Your task to perform on an android device: change the clock display to digital Image 0: 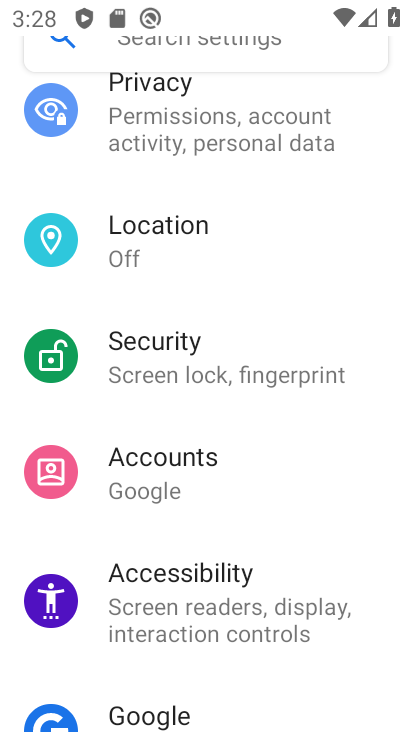
Step 0: drag from (296, 612) to (230, 386)
Your task to perform on an android device: change the clock display to digital Image 1: 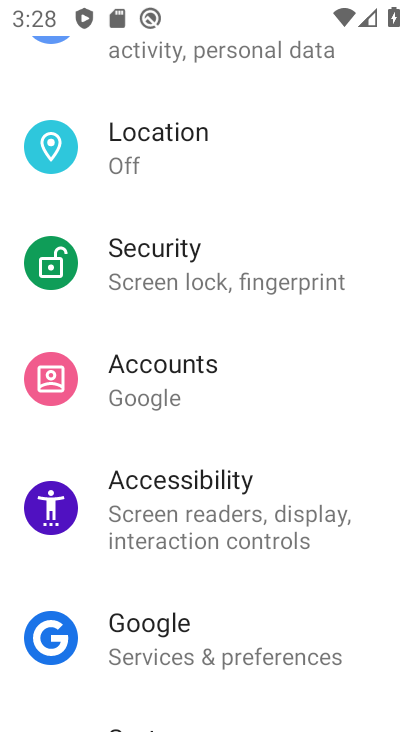
Step 1: drag from (228, 427) to (135, 128)
Your task to perform on an android device: change the clock display to digital Image 2: 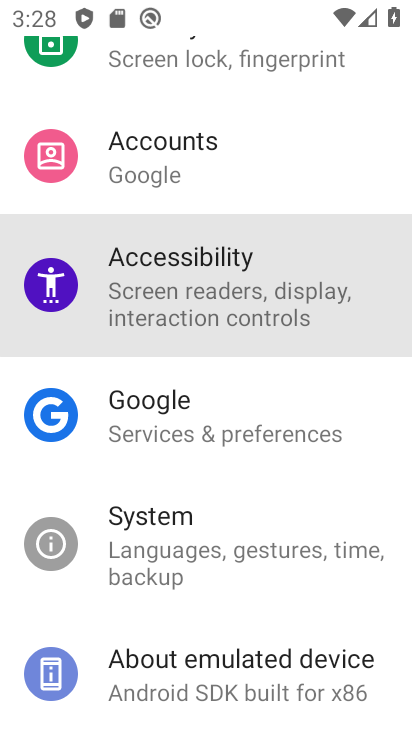
Step 2: drag from (202, 443) to (203, 180)
Your task to perform on an android device: change the clock display to digital Image 3: 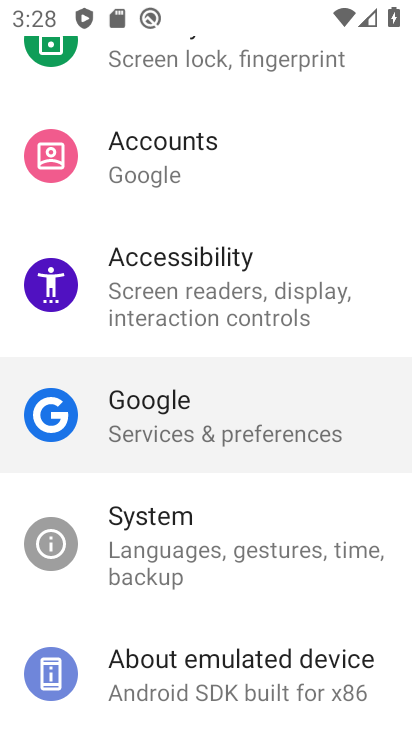
Step 3: drag from (235, 524) to (176, 160)
Your task to perform on an android device: change the clock display to digital Image 4: 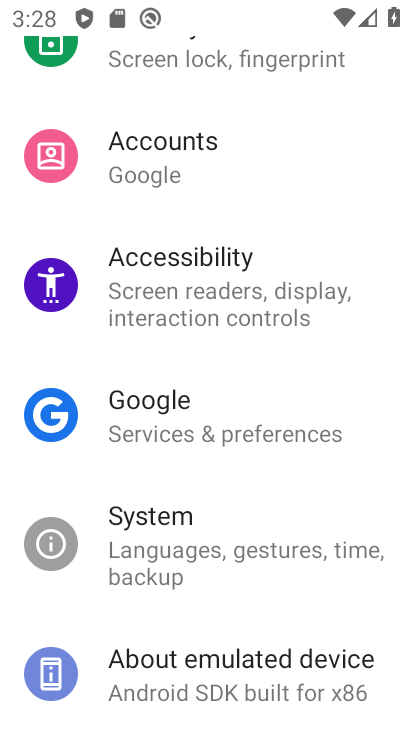
Step 4: drag from (136, 254) to (163, 508)
Your task to perform on an android device: change the clock display to digital Image 5: 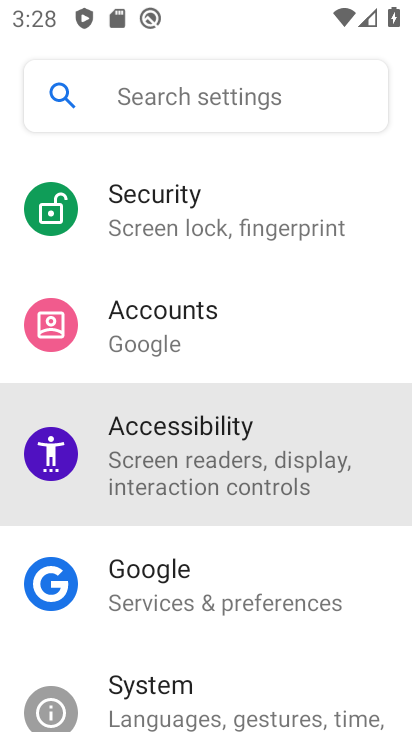
Step 5: drag from (125, 289) to (153, 454)
Your task to perform on an android device: change the clock display to digital Image 6: 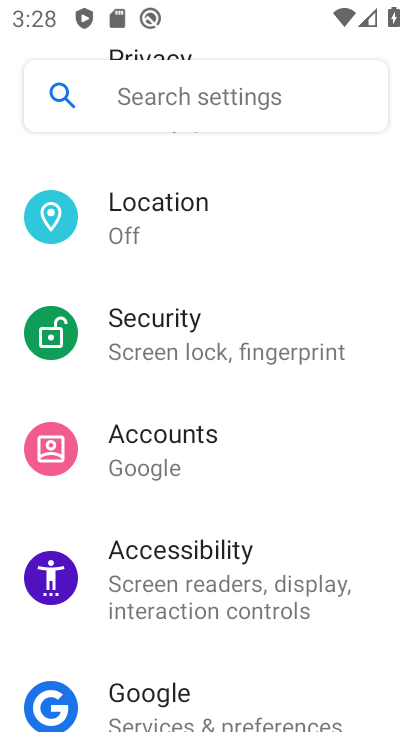
Step 6: drag from (158, 332) to (263, 553)
Your task to perform on an android device: change the clock display to digital Image 7: 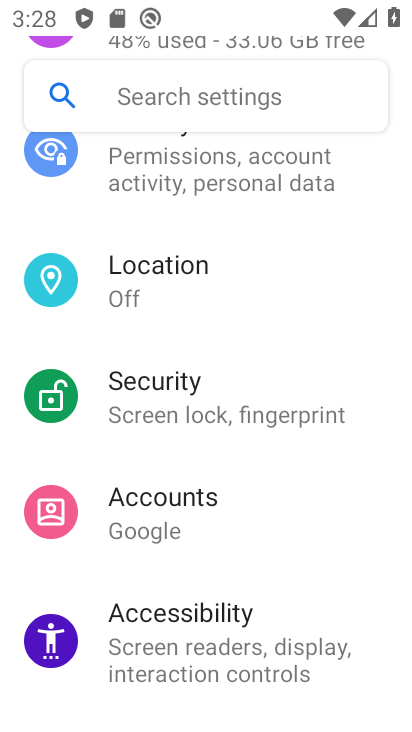
Step 7: drag from (198, 332) to (222, 536)
Your task to perform on an android device: change the clock display to digital Image 8: 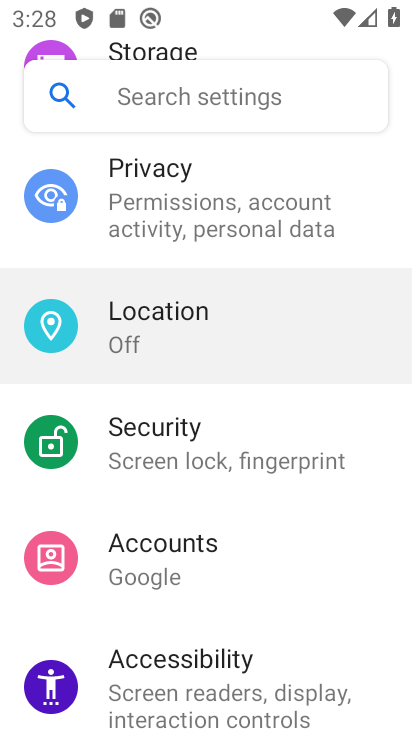
Step 8: drag from (165, 329) to (206, 542)
Your task to perform on an android device: change the clock display to digital Image 9: 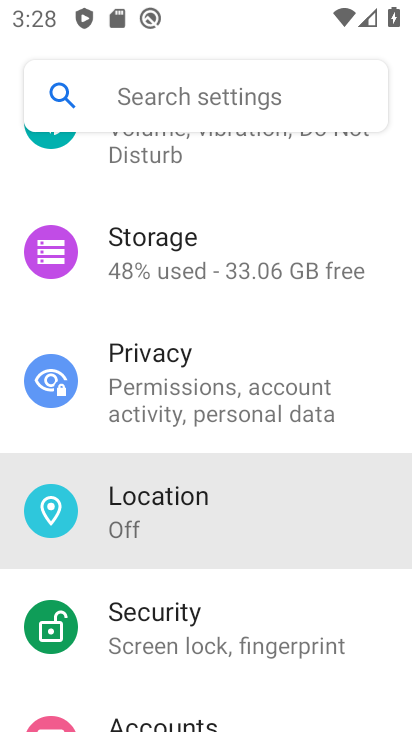
Step 9: drag from (186, 260) to (183, 462)
Your task to perform on an android device: change the clock display to digital Image 10: 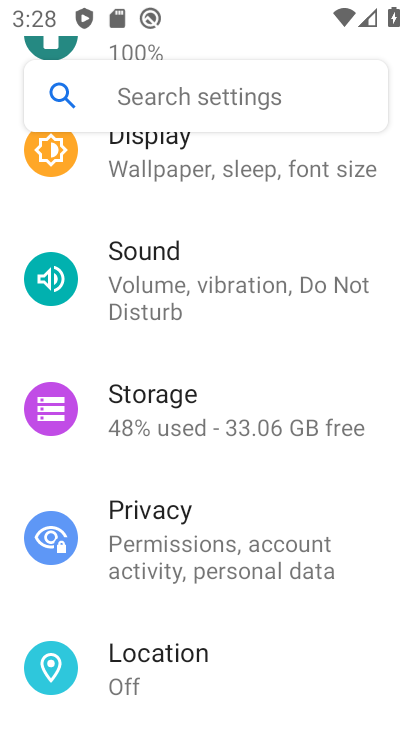
Step 10: drag from (160, 253) to (161, 498)
Your task to perform on an android device: change the clock display to digital Image 11: 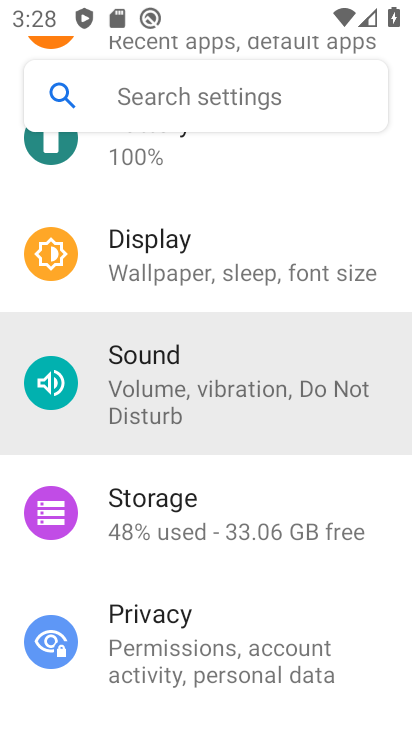
Step 11: drag from (81, 206) to (139, 439)
Your task to perform on an android device: change the clock display to digital Image 12: 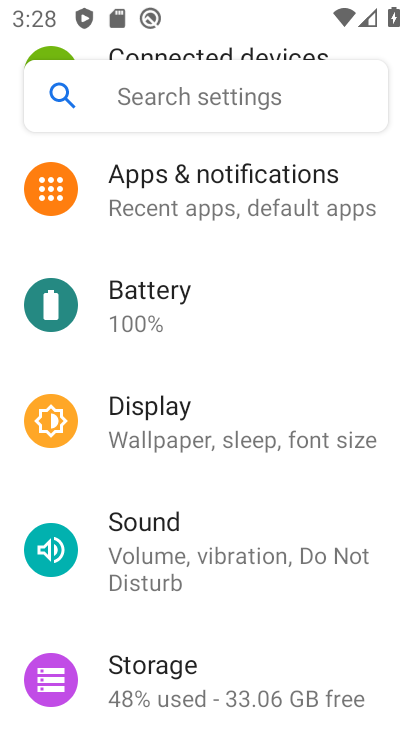
Step 12: drag from (161, 326) to (194, 564)
Your task to perform on an android device: change the clock display to digital Image 13: 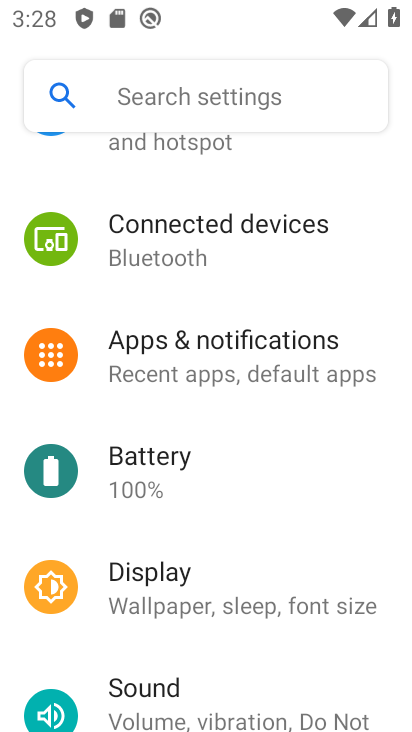
Step 13: drag from (201, 199) to (201, 512)
Your task to perform on an android device: change the clock display to digital Image 14: 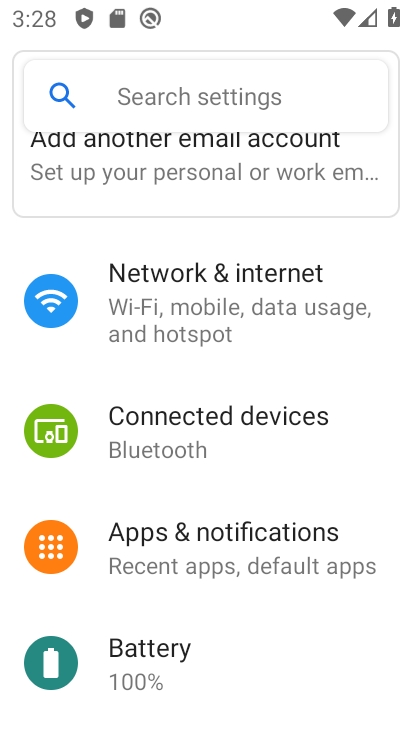
Step 14: drag from (187, 208) to (243, 549)
Your task to perform on an android device: change the clock display to digital Image 15: 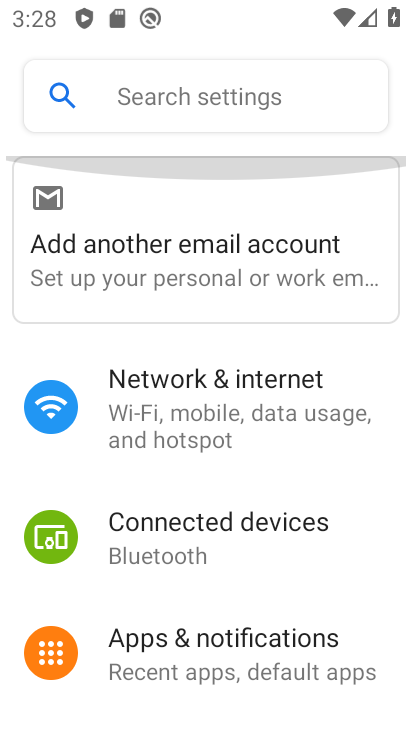
Step 15: drag from (151, 281) to (186, 694)
Your task to perform on an android device: change the clock display to digital Image 16: 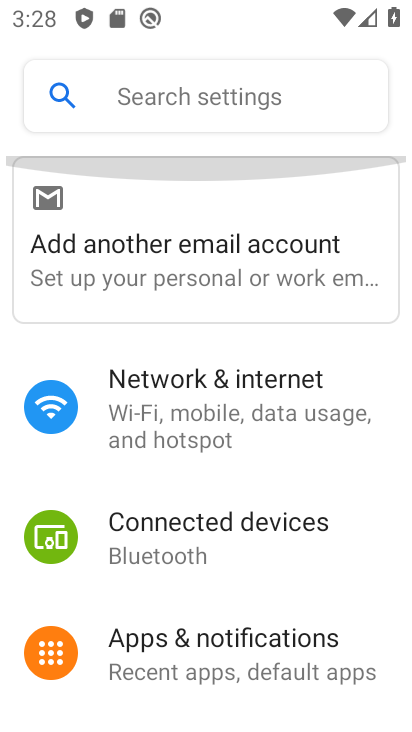
Step 16: drag from (137, 422) to (193, 668)
Your task to perform on an android device: change the clock display to digital Image 17: 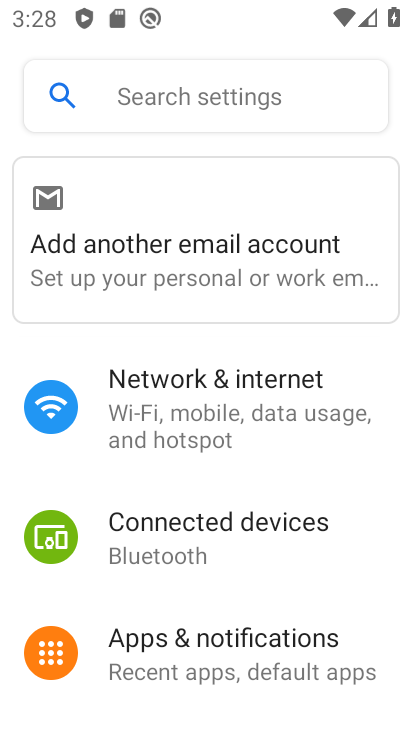
Step 17: drag from (235, 576) to (240, 259)
Your task to perform on an android device: change the clock display to digital Image 18: 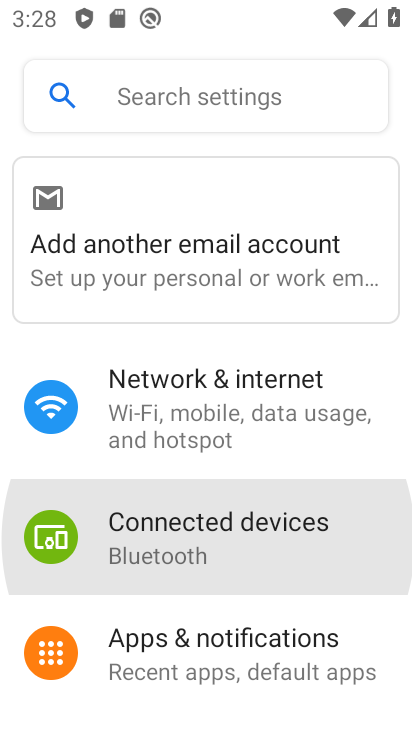
Step 18: drag from (200, 471) to (176, 261)
Your task to perform on an android device: change the clock display to digital Image 19: 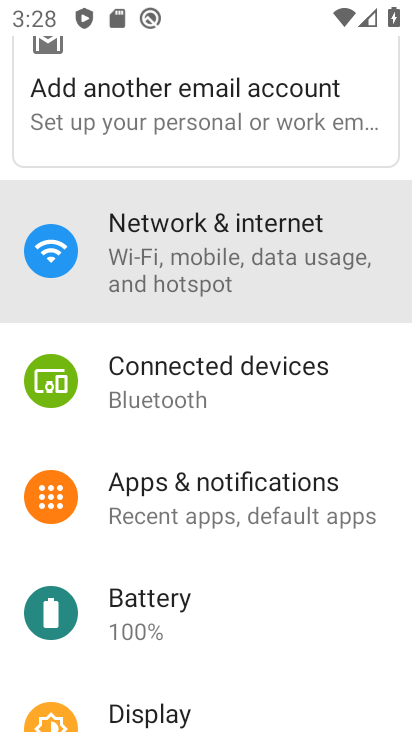
Step 19: drag from (197, 557) to (176, 245)
Your task to perform on an android device: change the clock display to digital Image 20: 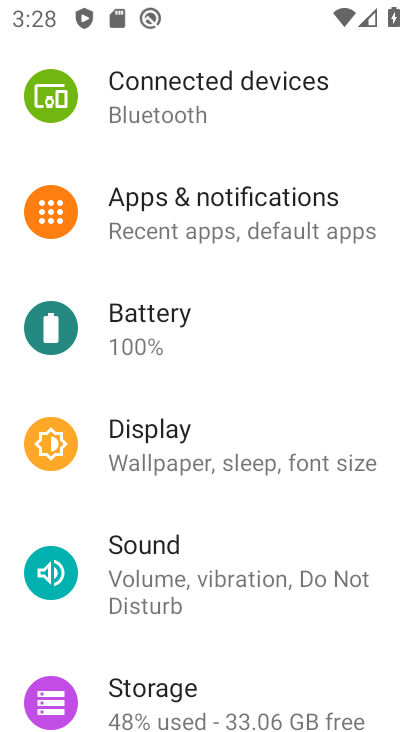
Step 20: drag from (209, 502) to (189, 285)
Your task to perform on an android device: change the clock display to digital Image 21: 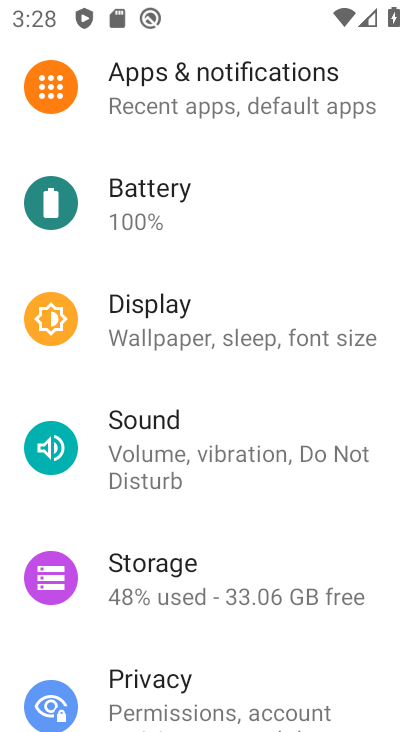
Step 21: click (158, 316)
Your task to perform on an android device: change the clock display to digital Image 22: 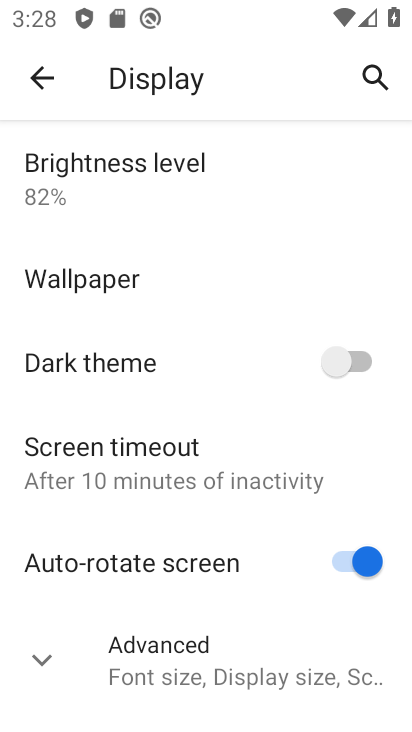
Step 22: click (35, 72)
Your task to perform on an android device: change the clock display to digital Image 23: 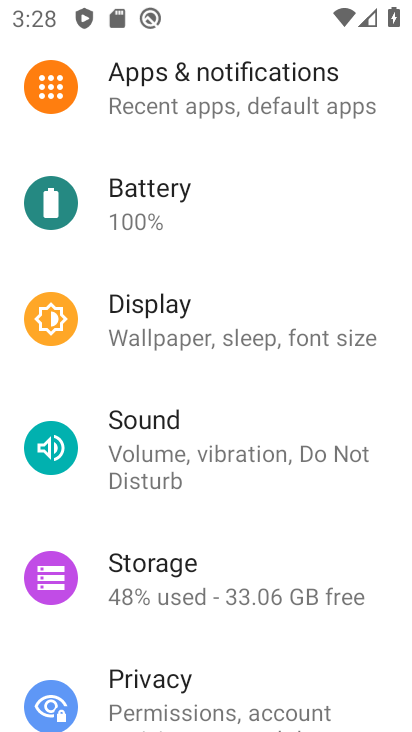
Step 23: press back button
Your task to perform on an android device: change the clock display to digital Image 24: 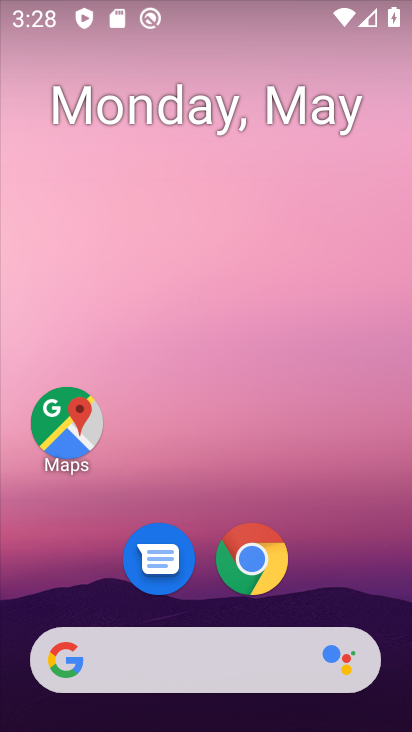
Step 24: drag from (341, 610) to (136, 67)
Your task to perform on an android device: change the clock display to digital Image 25: 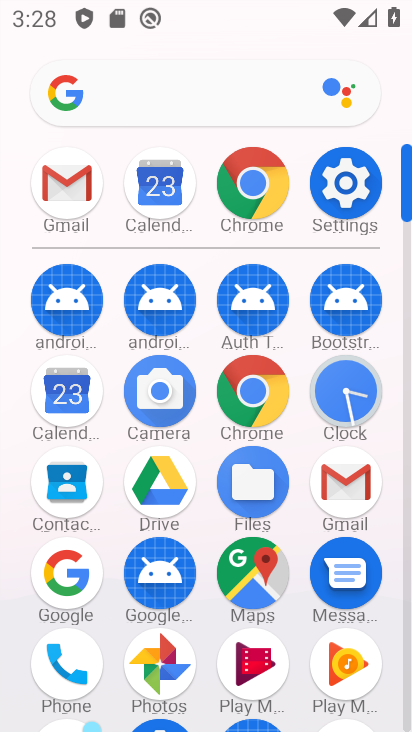
Step 25: click (345, 383)
Your task to perform on an android device: change the clock display to digital Image 26: 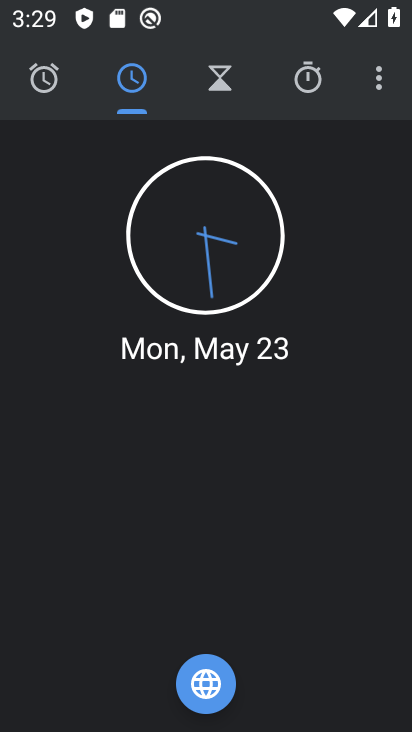
Step 26: click (373, 81)
Your task to perform on an android device: change the clock display to digital Image 27: 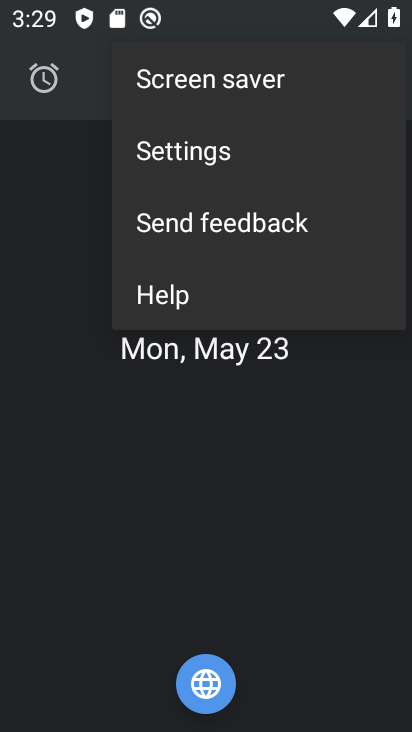
Step 27: click (204, 141)
Your task to perform on an android device: change the clock display to digital Image 28: 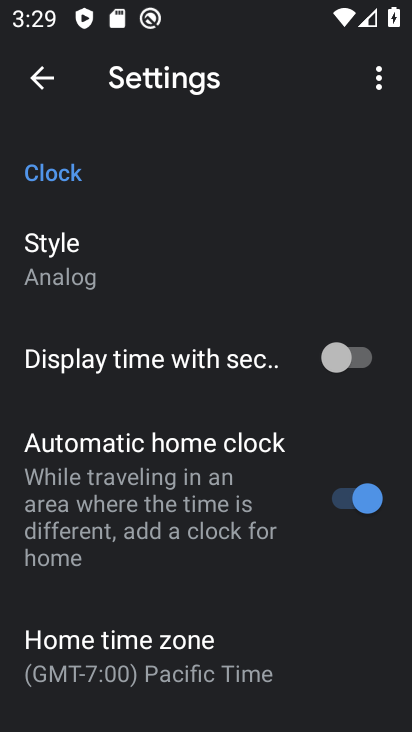
Step 28: click (123, 256)
Your task to perform on an android device: change the clock display to digital Image 29: 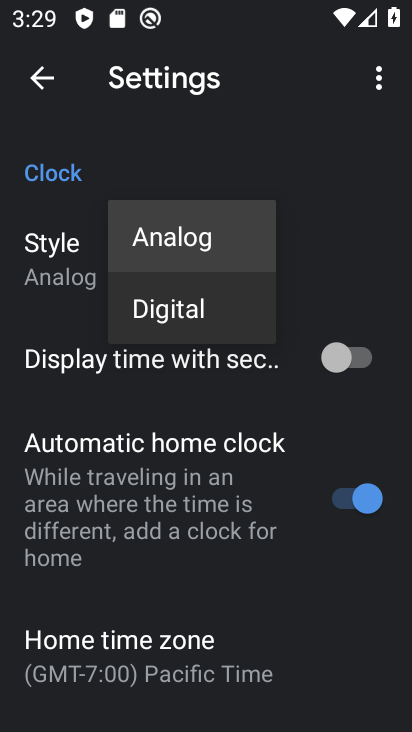
Step 29: click (150, 308)
Your task to perform on an android device: change the clock display to digital Image 30: 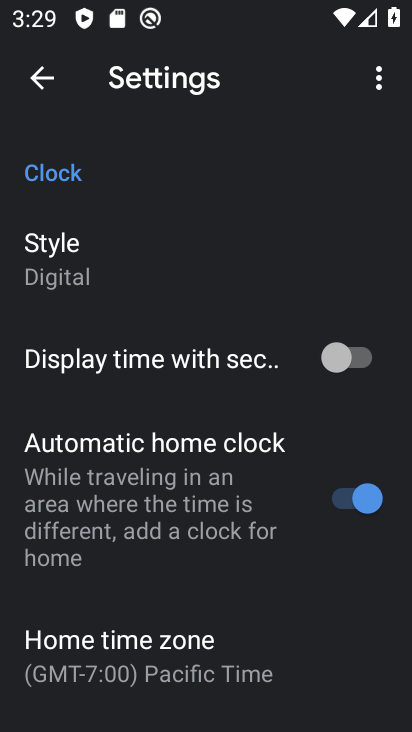
Step 30: task complete